Your task to perform on an android device: Open my contact list Image 0: 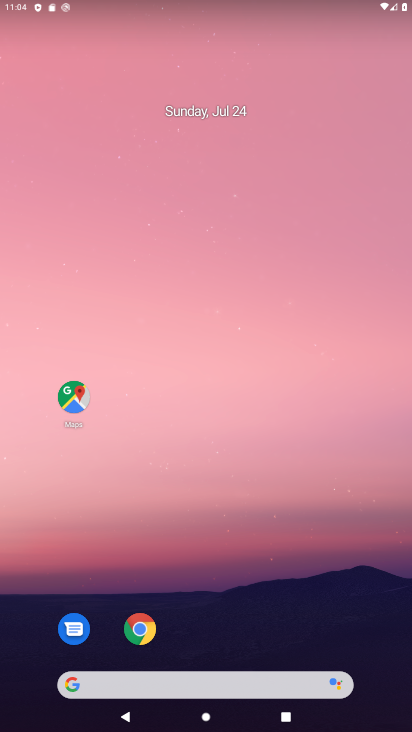
Step 0: drag from (286, 591) to (252, 1)
Your task to perform on an android device: Open my contact list Image 1: 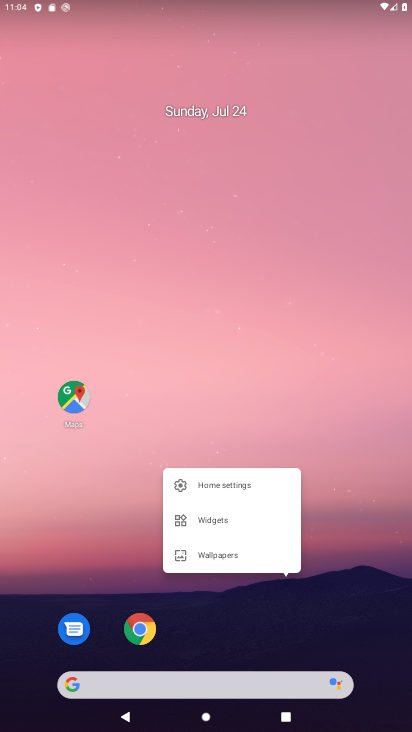
Step 1: drag from (224, 626) to (260, 121)
Your task to perform on an android device: Open my contact list Image 2: 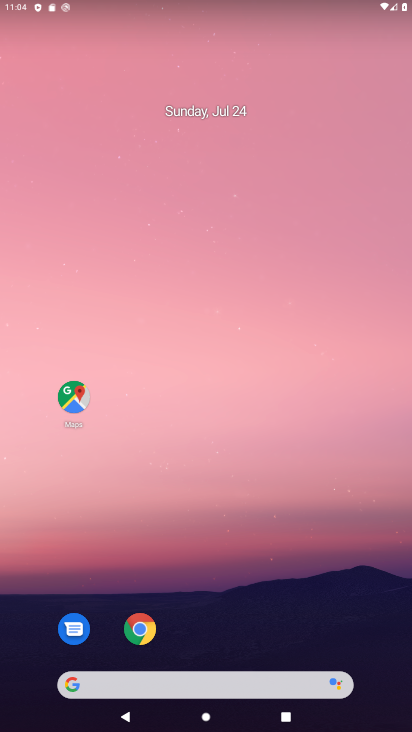
Step 2: drag from (234, 633) to (244, 75)
Your task to perform on an android device: Open my contact list Image 3: 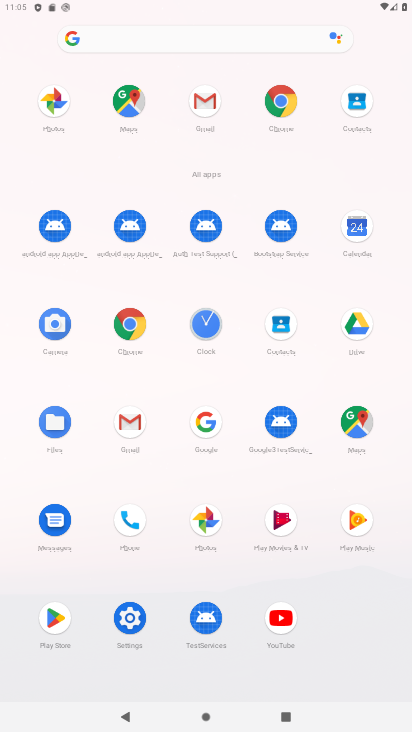
Step 3: click (278, 312)
Your task to perform on an android device: Open my contact list Image 4: 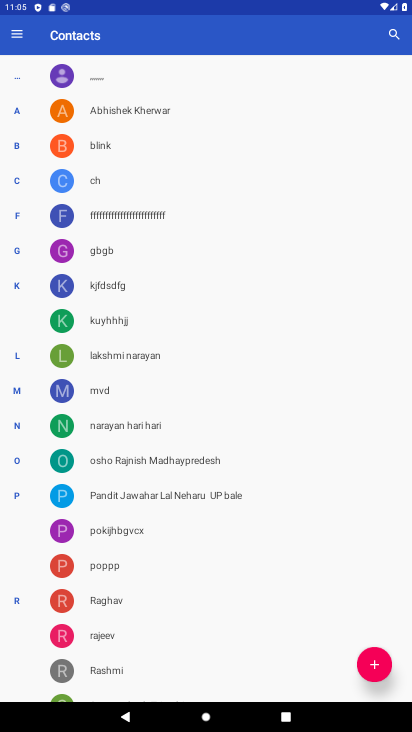
Step 4: task complete